Your task to perform on an android device: turn off airplane mode Image 0: 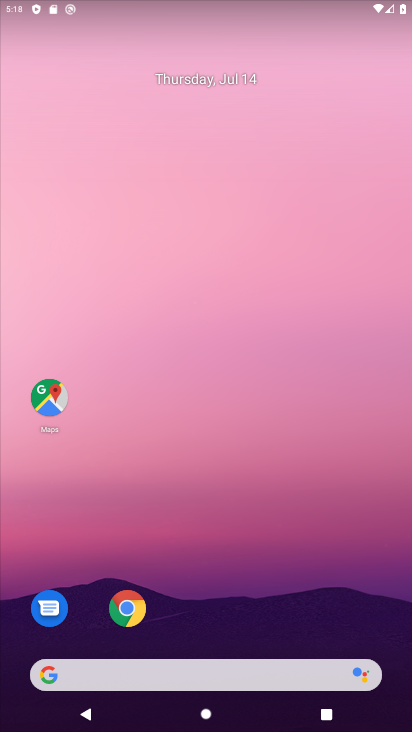
Step 0: drag from (226, 673) to (231, 198)
Your task to perform on an android device: turn off airplane mode Image 1: 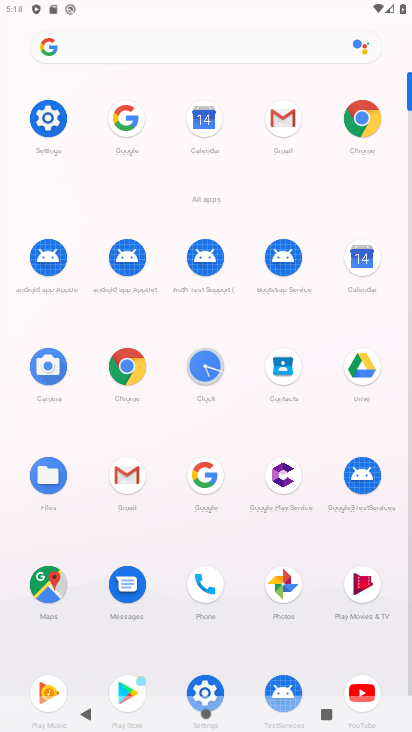
Step 1: click (50, 120)
Your task to perform on an android device: turn off airplane mode Image 2: 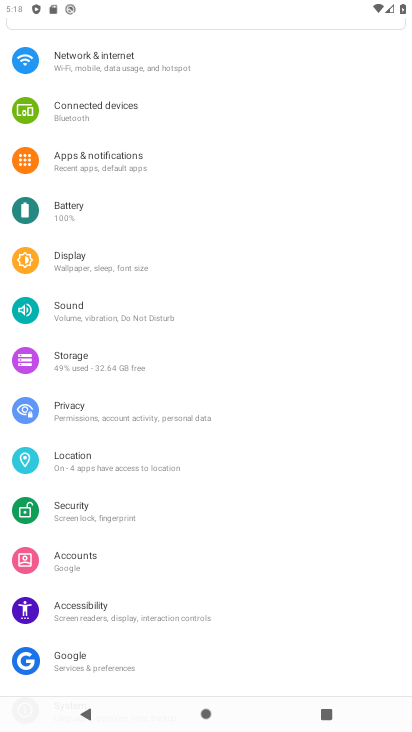
Step 2: click (101, 61)
Your task to perform on an android device: turn off airplane mode Image 3: 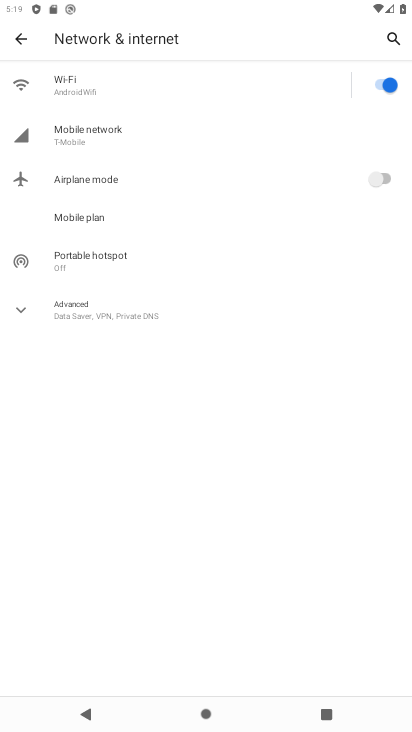
Step 3: task complete